Your task to perform on an android device: Search for vegetarian restaurants on Maps Image 0: 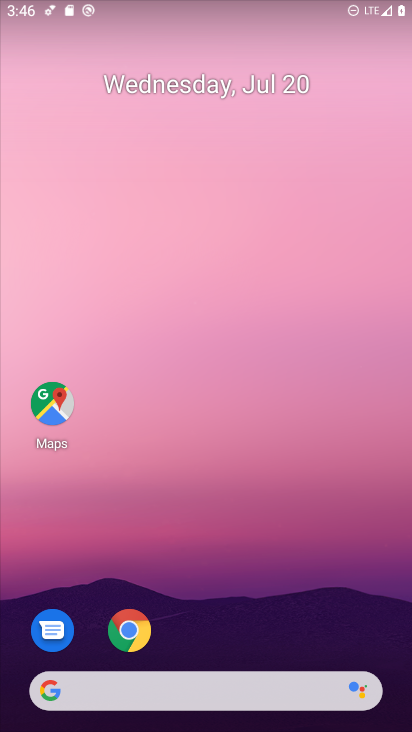
Step 0: press home button
Your task to perform on an android device: Search for vegetarian restaurants on Maps Image 1: 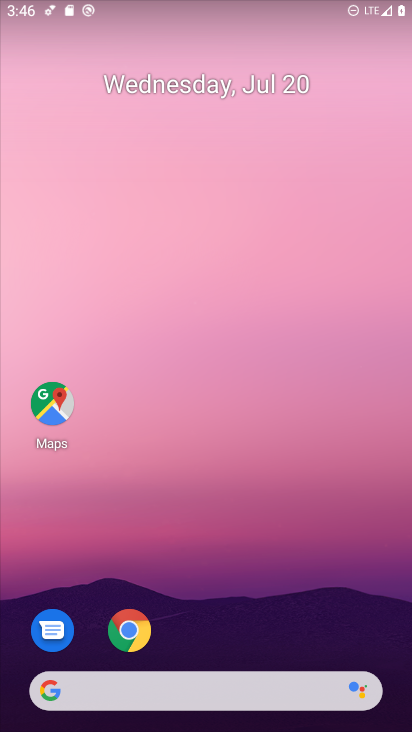
Step 1: click (46, 402)
Your task to perform on an android device: Search for vegetarian restaurants on Maps Image 2: 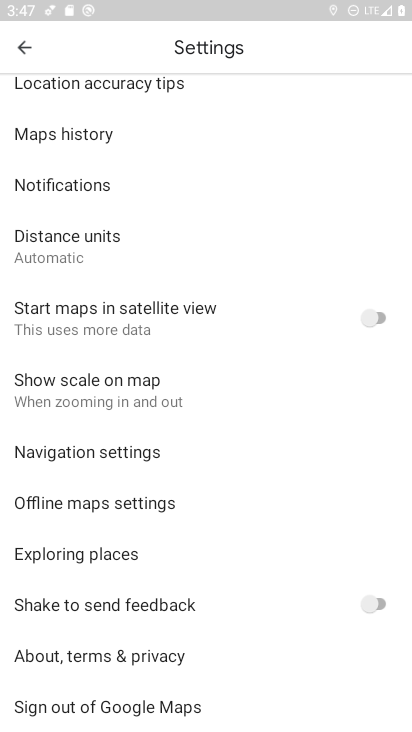
Step 2: click (24, 46)
Your task to perform on an android device: Search for vegetarian restaurants on Maps Image 3: 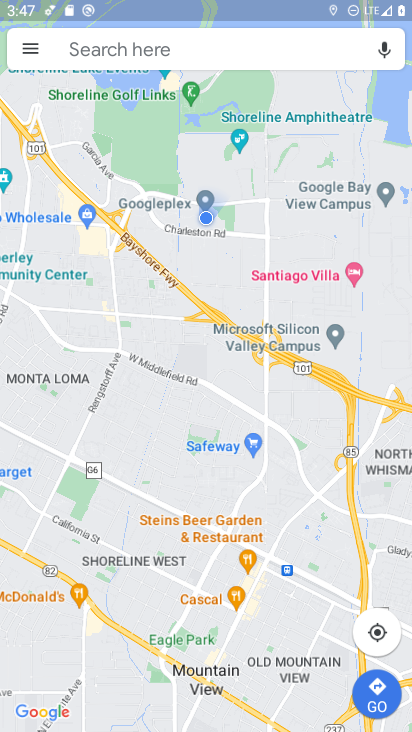
Step 3: click (124, 41)
Your task to perform on an android device: Search for vegetarian restaurants on Maps Image 4: 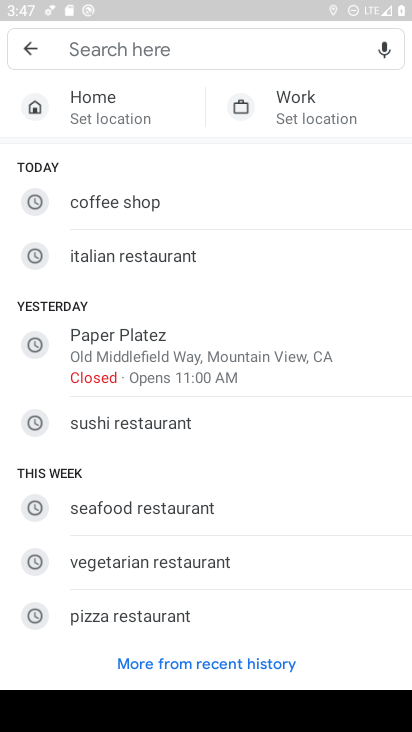
Step 4: click (159, 560)
Your task to perform on an android device: Search for vegetarian restaurants on Maps Image 5: 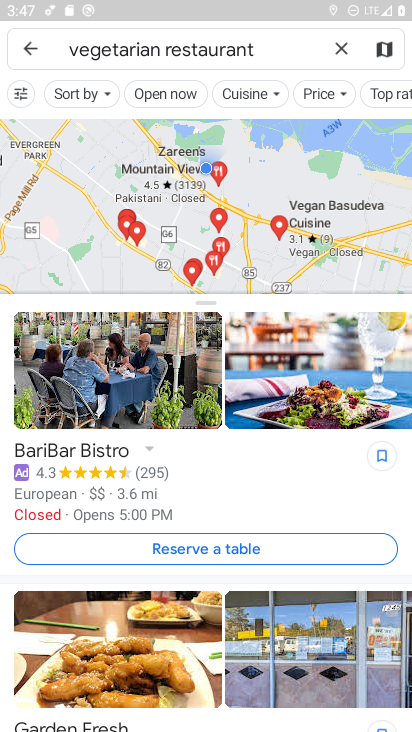
Step 5: task complete